Your task to perform on an android device: delete browsing data in the chrome app Image 0: 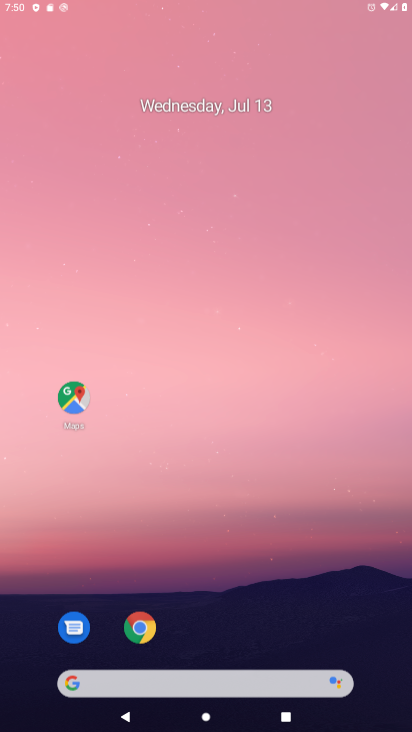
Step 0: click (315, 96)
Your task to perform on an android device: delete browsing data in the chrome app Image 1: 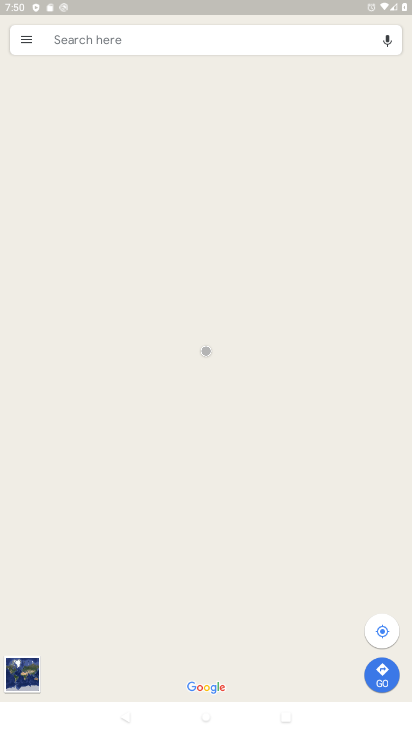
Step 1: press home button
Your task to perform on an android device: delete browsing data in the chrome app Image 2: 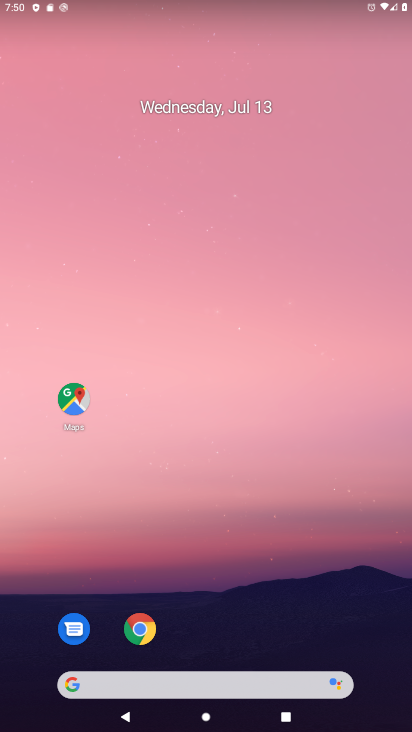
Step 2: drag from (332, 622) to (389, 19)
Your task to perform on an android device: delete browsing data in the chrome app Image 3: 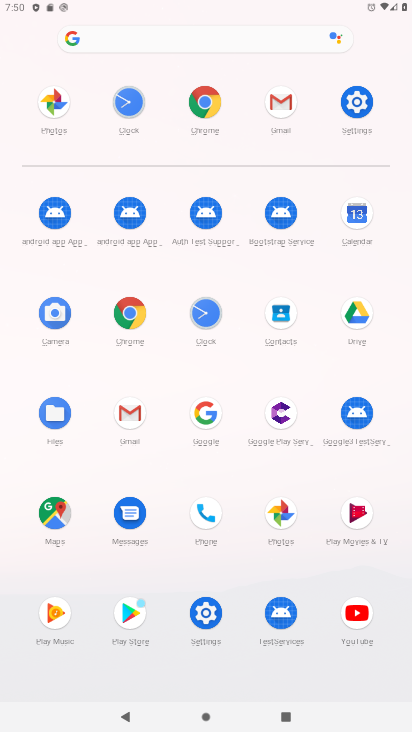
Step 3: click (196, 89)
Your task to perform on an android device: delete browsing data in the chrome app Image 4: 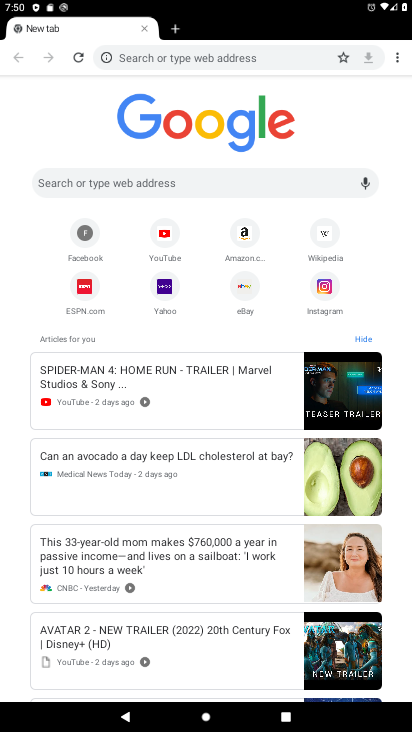
Step 4: task complete